Your task to perform on an android device: Go to Maps Image 0: 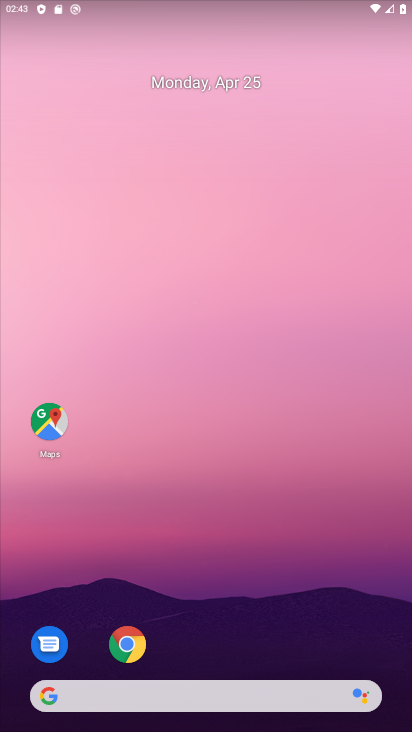
Step 0: click (43, 428)
Your task to perform on an android device: Go to Maps Image 1: 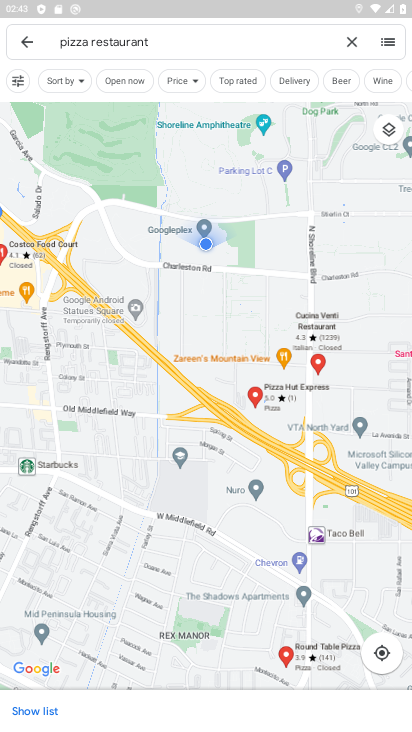
Step 1: task complete